Your task to perform on an android device: Go to network settings Image 0: 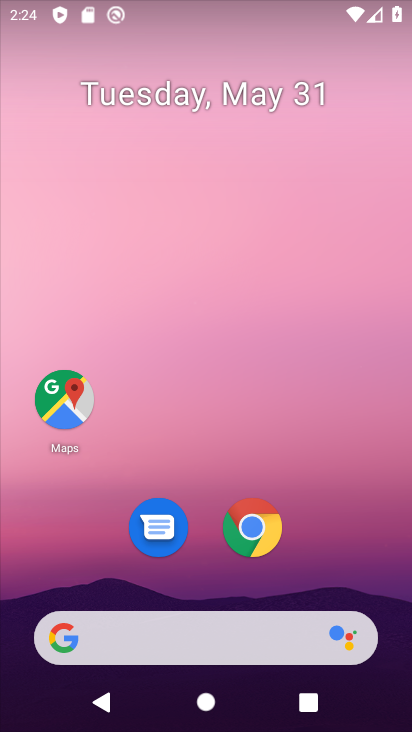
Step 0: drag from (150, 696) to (179, 63)
Your task to perform on an android device: Go to network settings Image 1: 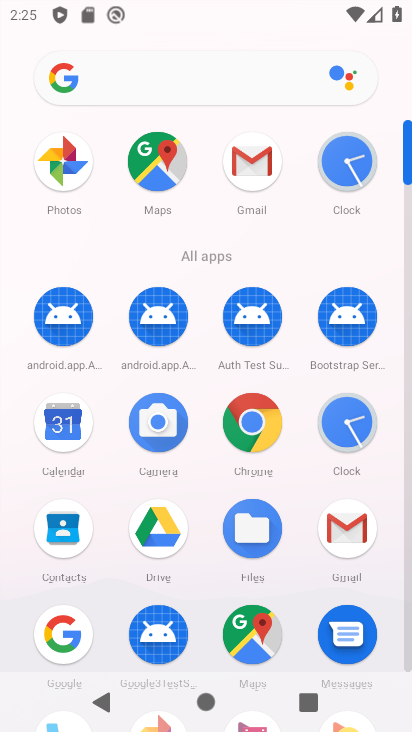
Step 1: drag from (239, 536) to (96, 37)
Your task to perform on an android device: Go to network settings Image 2: 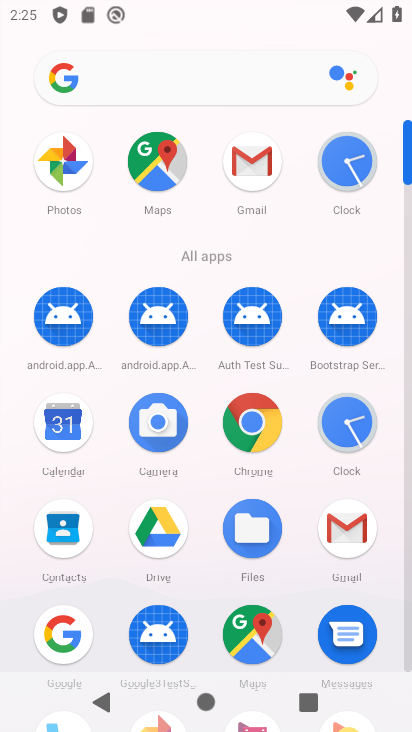
Step 2: drag from (98, 647) to (211, 51)
Your task to perform on an android device: Go to network settings Image 3: 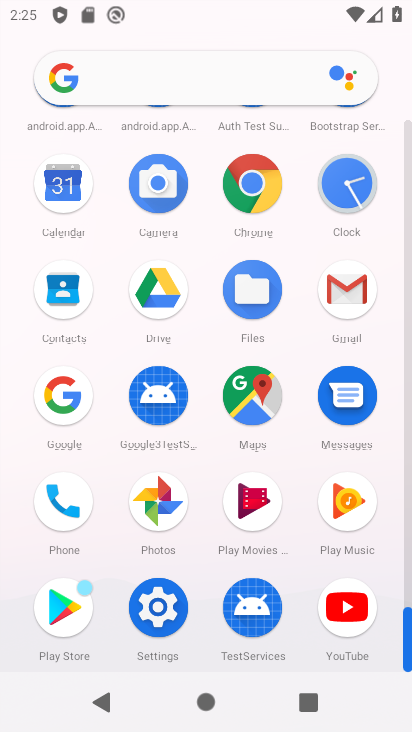
Step 3: drag from (255, 649) to (240, 68)
Your task to perform on an android device: Go to network settings Image 4: 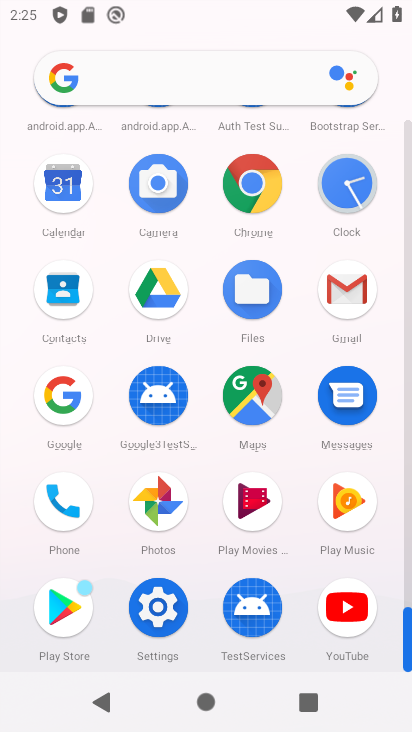
Step 4: click (180, 573)
Your task to perform on an android device: Go to network settings Image 5: 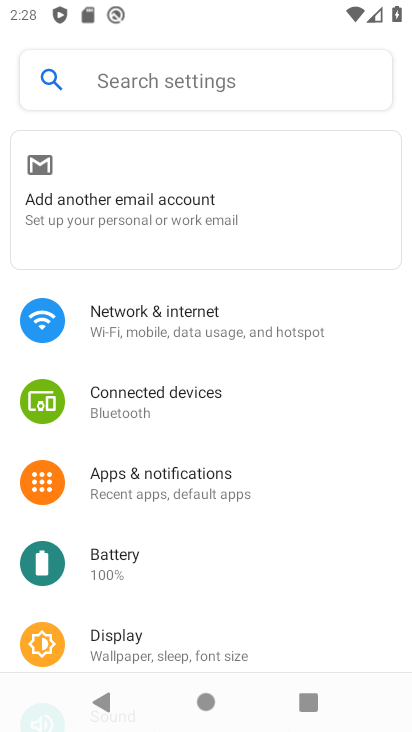
Step 5: click (193, 328)
Your task to perform on an android device: Go to network settings Image 6: 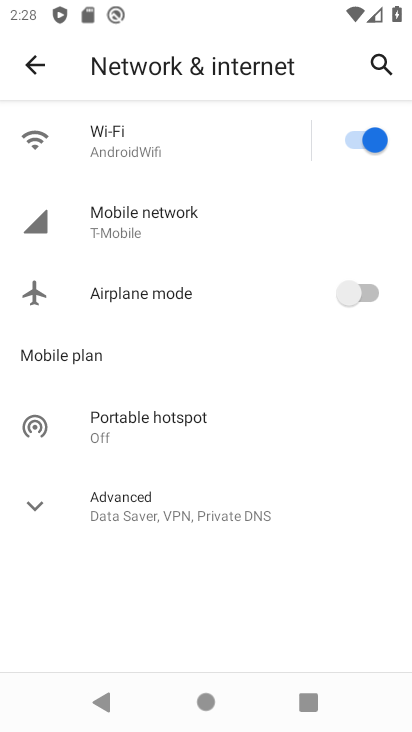
Step 6: task complete